Your task to perform on an android device: Open settings Image 0: 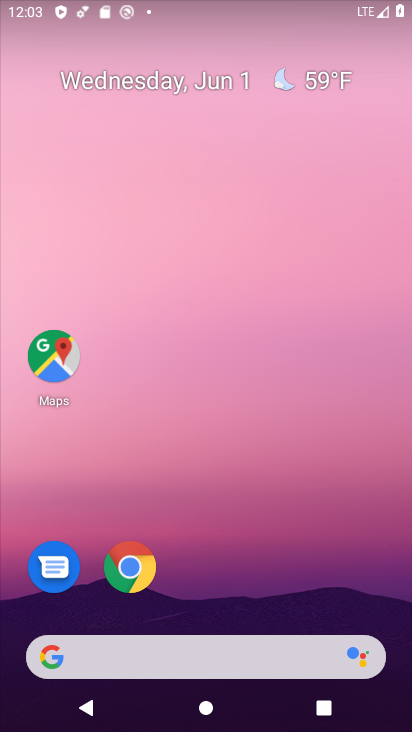
Step 0: drag from (238, 613) to (179, 96)
Your task to perform on an android device: Open settings Image 1: 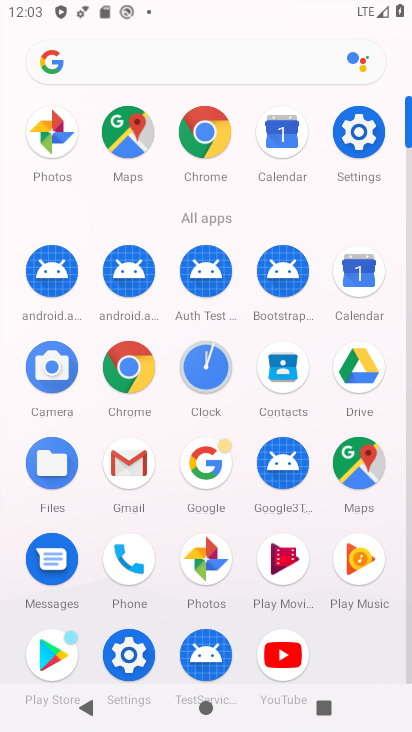
Step 1: click (369, 138)
Your task to perform on an android device: Open settings Image 2: 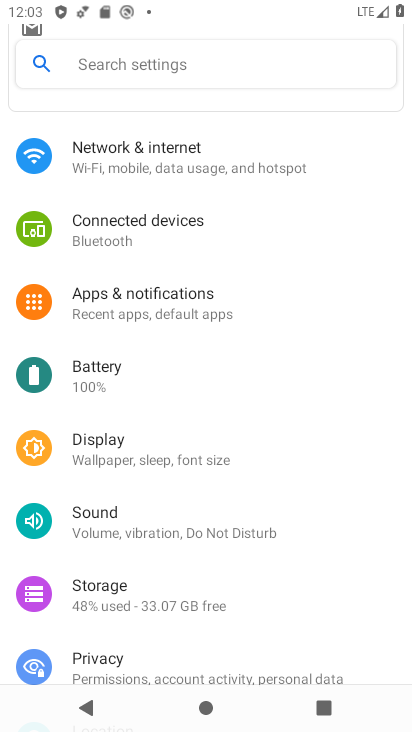
Step 2: task complete